Your task to perform on an android device: Search for vegetarian restaurants on Maps Image 0: 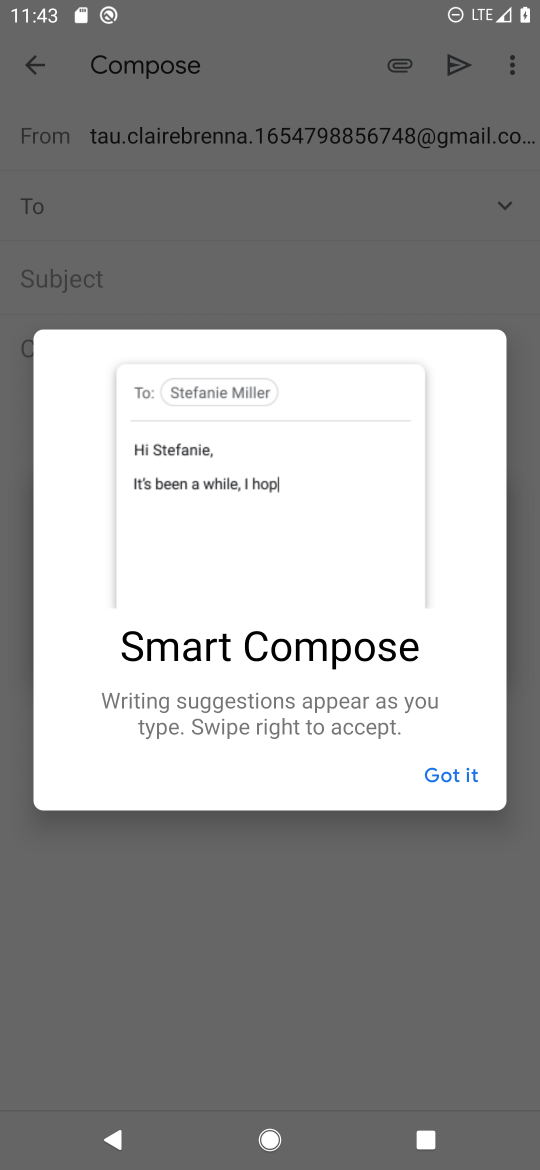
Step 0: press home button
Your task to perform on an android device: Search for vegetarian restaurants on Maps Image 1: 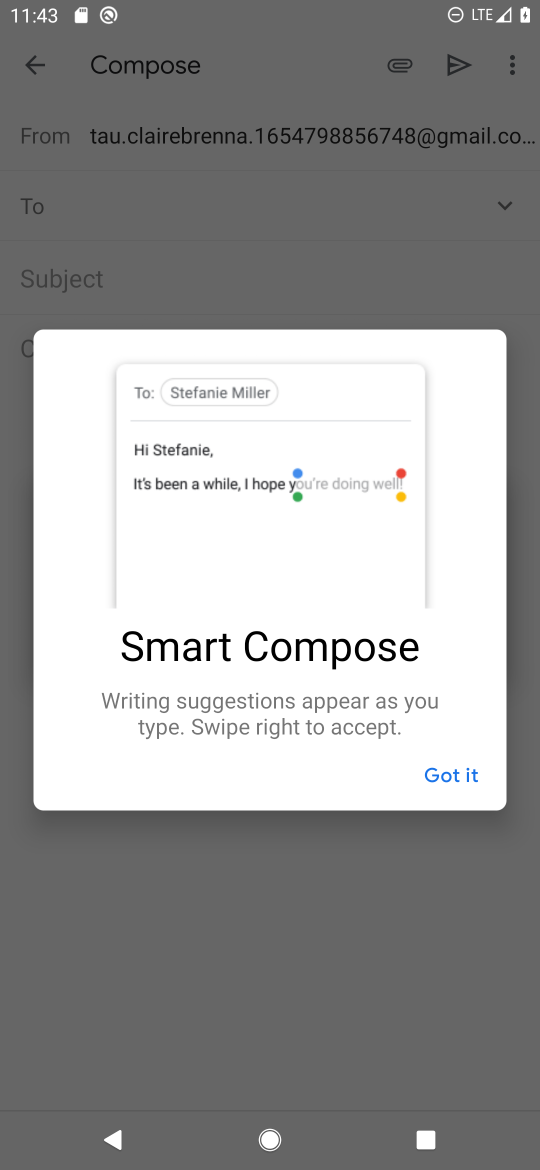
Step 1: press home button
Your task to perform on an android device: Search for vegetarian restaurants on Maps Image 2: 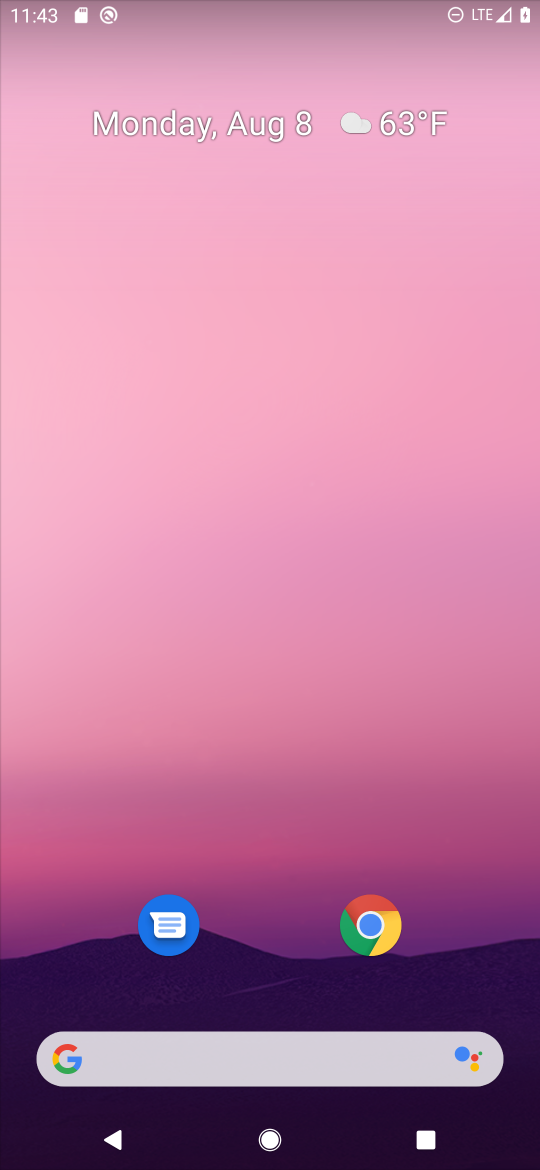
Step 2: drag from (249, 961) to (379, 70)
Your task to perform on an android device: Search for vegetarian restaurants on Maps Image 3: 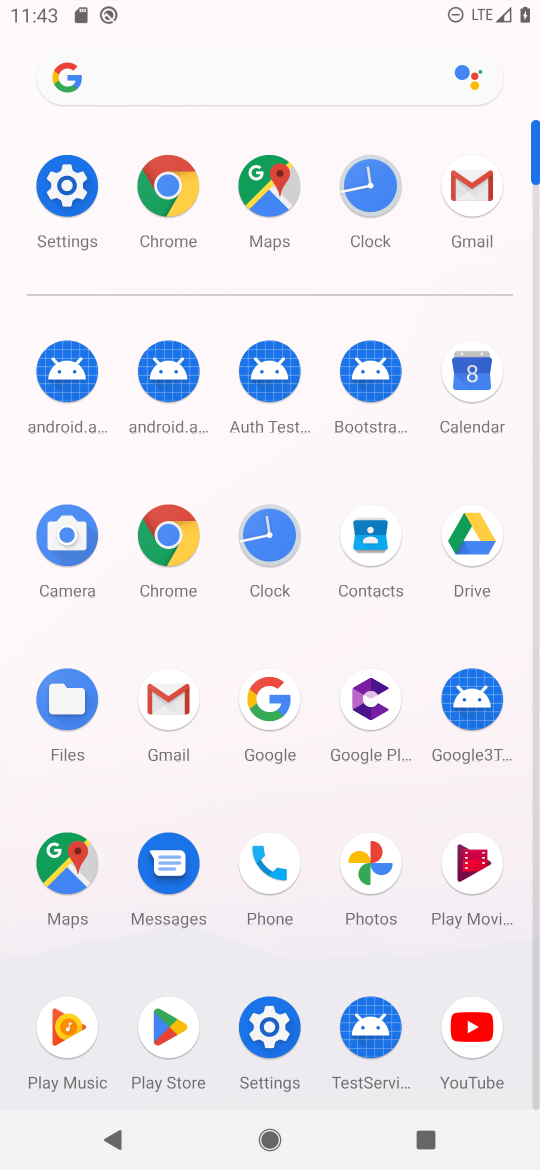
Step 3: click (64, 845)
Your task to perform on an android device: Search for vegetarian restaurants on Maps Image 4: 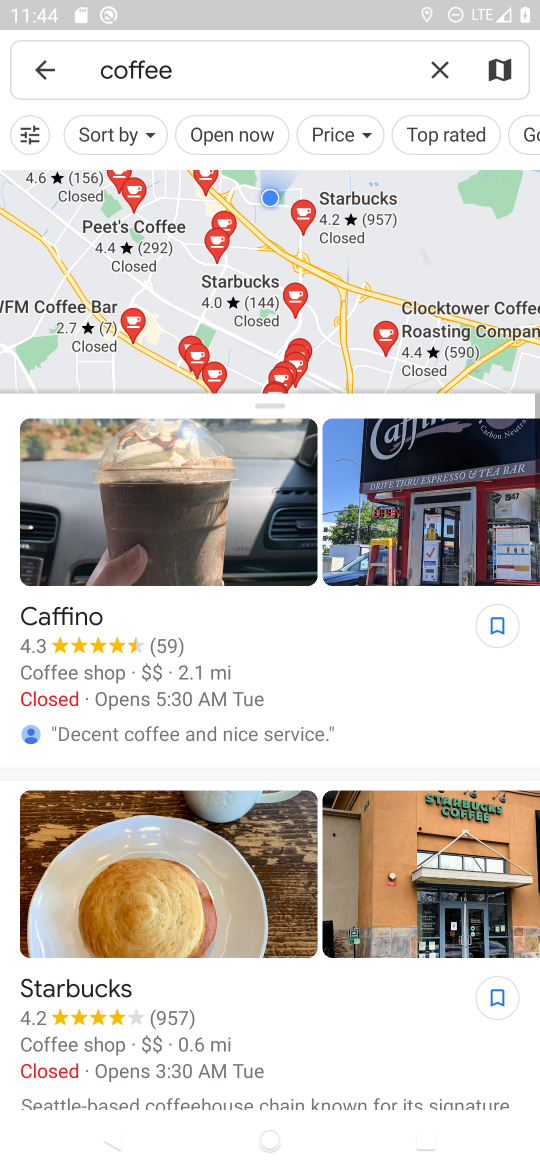
Step 4: click (235, 78)
Your task to perform on an android device: Search for vegetarian restaurants on Maps Image 5: 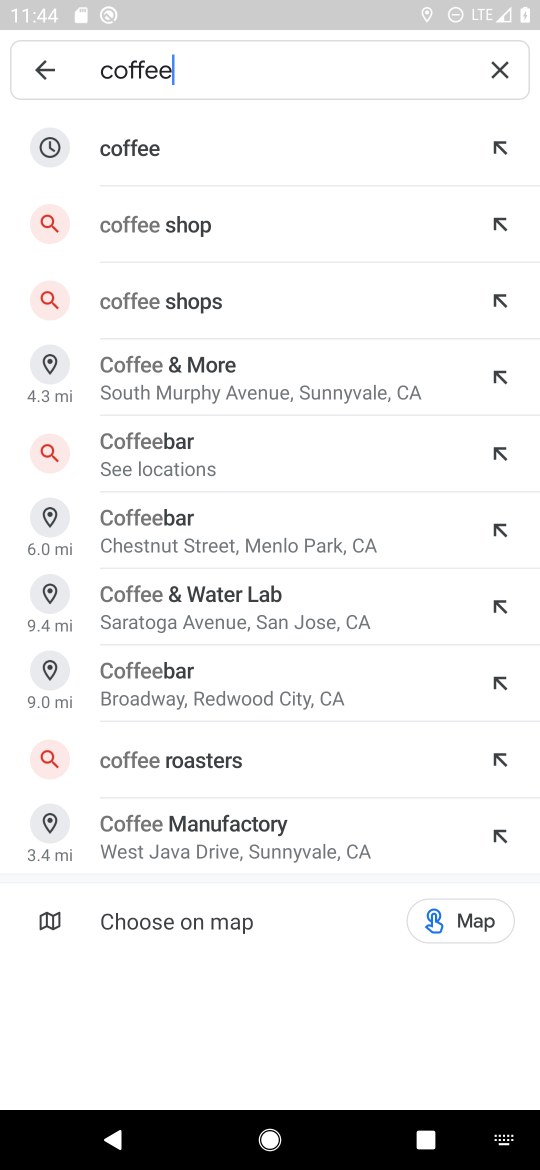
Step 5: click (509, 67)
Your task to perform on an android device: Search for vegetarian restaurants on Maps Image 6: 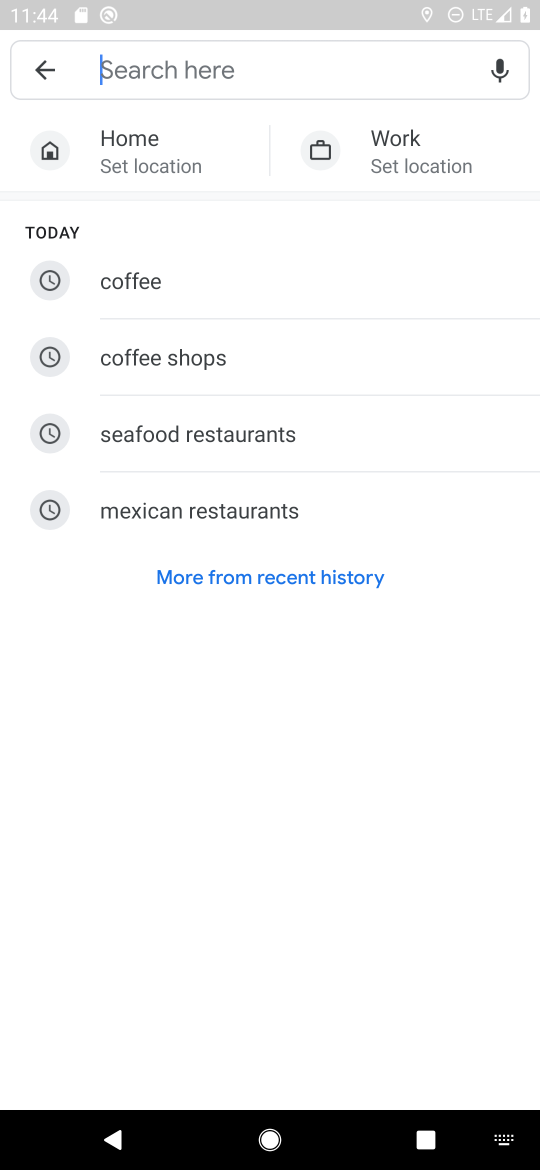
Step 6: type "vegetarian restaurants"
Your task to perform on an android device: Search for vegetarian restaurants on Maps Image 7: 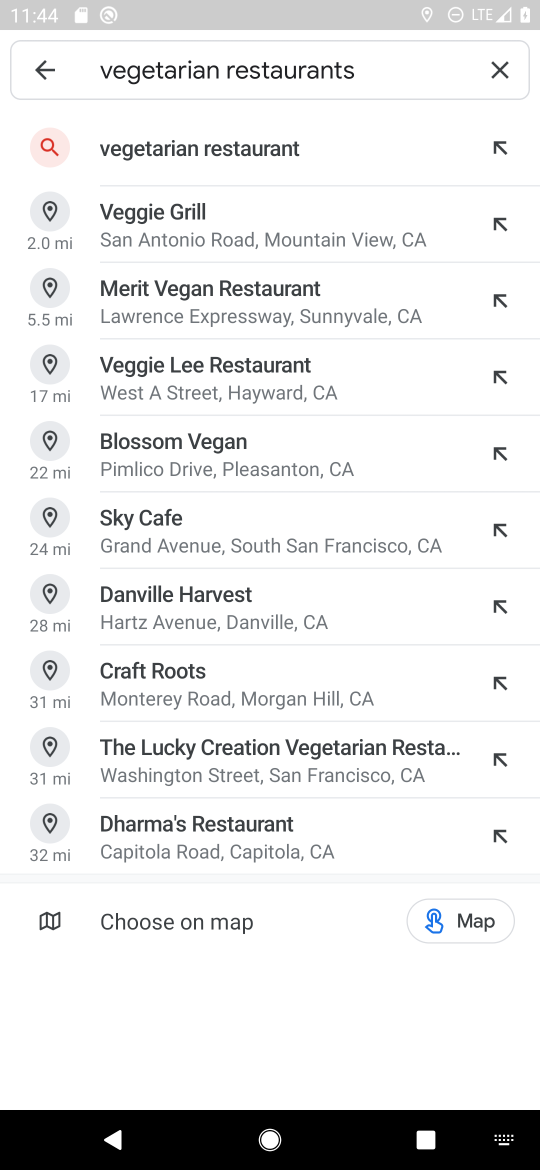
Step 7: press enter
Your task to perform on an android device: Search for vegetarian restaurants on Maps Image 8: 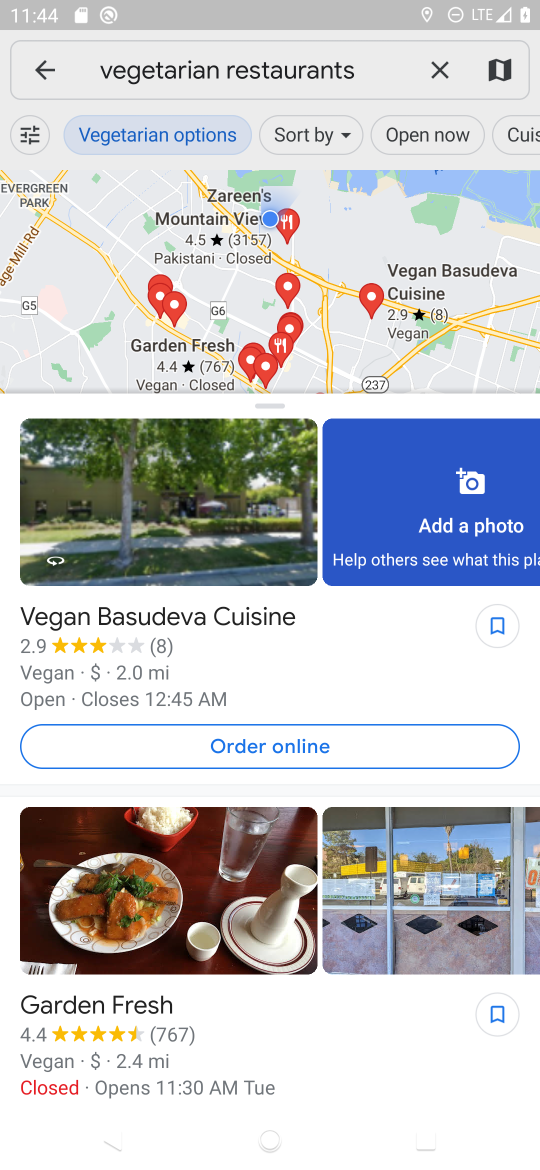
Step 8: task complete